Your task to perform on an android device: Open the map Image 0: 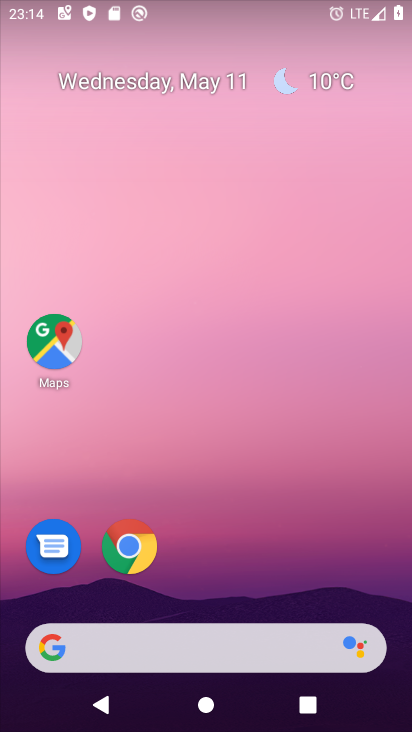
Step 0: click (50, 340)
Your task to perform on an android device: Open the map Image 1: 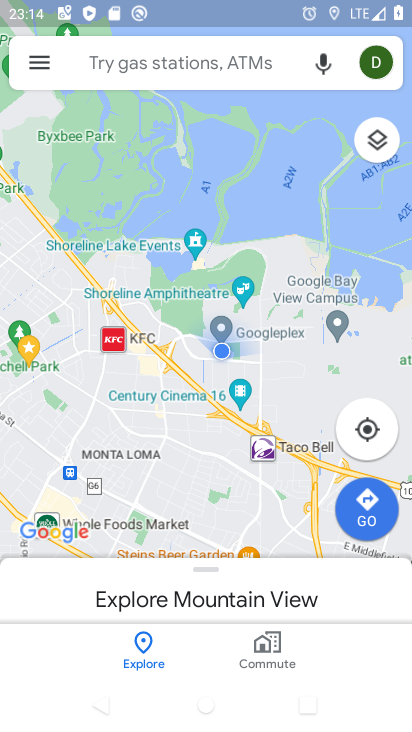
Step 1: task complete